Your task to perform on an android device: Open calendar and show me the third week of next month Image 0: 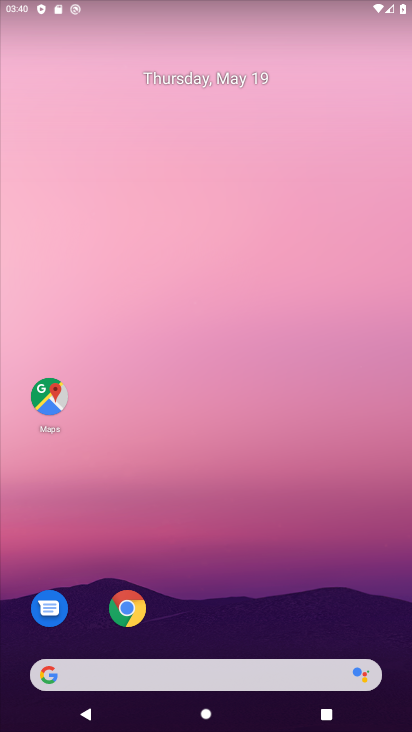
Step 0: drag from (243, 585) to (194, 4)
Your task to perform on an android device: Open calendar and show me the third week of next month Image 1: 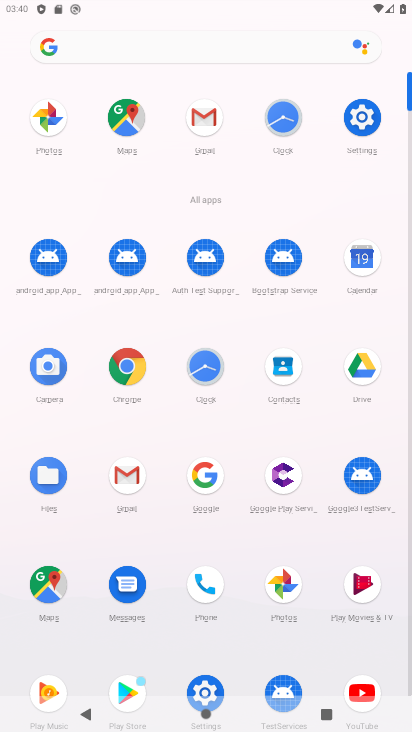
Step 1: click (361, 257)
Your task to perform on an android device: Open calendar and show me the third week of next month Image 2: 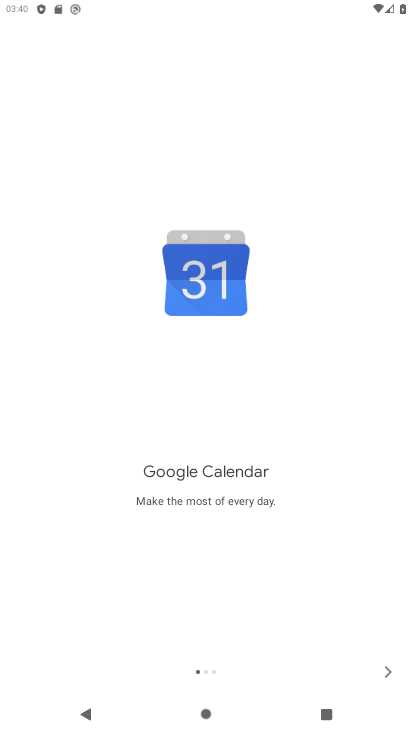
Step 2: click (385, 669)
Your task to perform on an android device: Open calendar and show me the third week of next month Image 3: 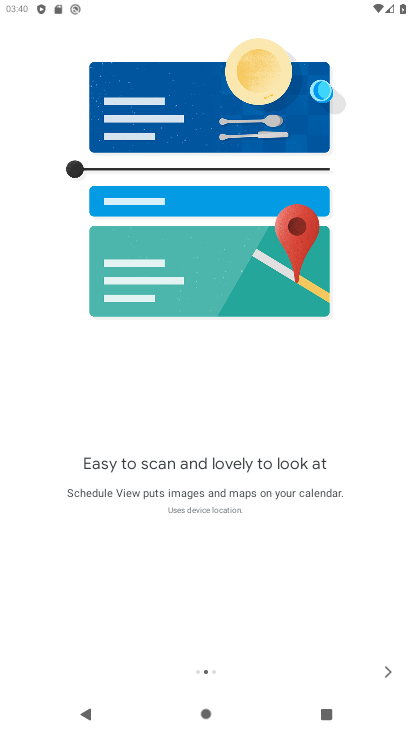
Step 3: click (385, 669)
Your task to perform on an android device: Open calendar and show me the third week of next month Image 4: 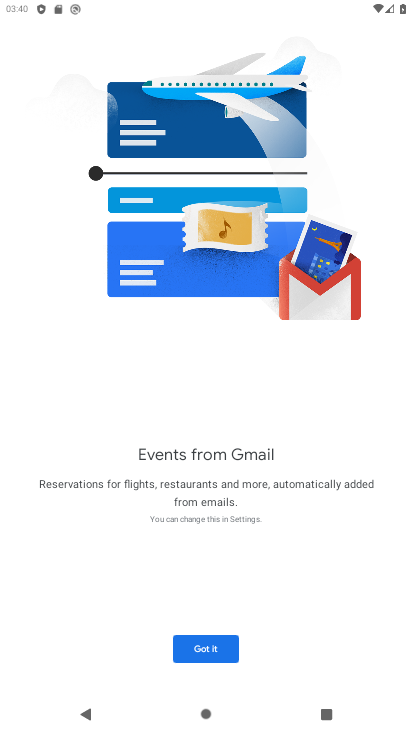
Step 4: click (200, 649)
Your task to perform on an android device: Open calendar and show me the third week of next month Image 5: 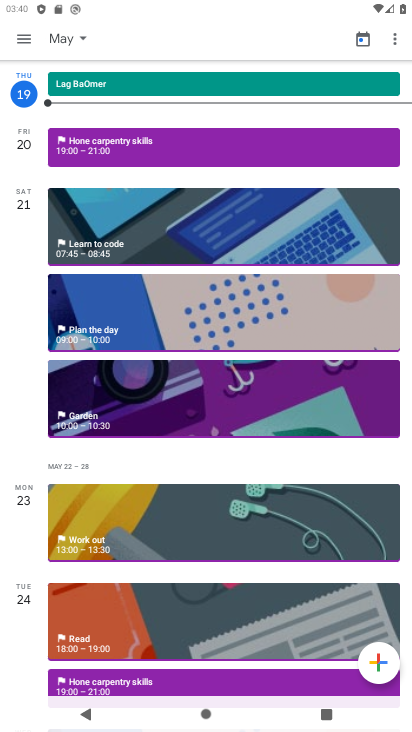
Step 5: click (83, 32)
Your task to perform on an android device: Open calendar and show me the third week of next month Image 6: 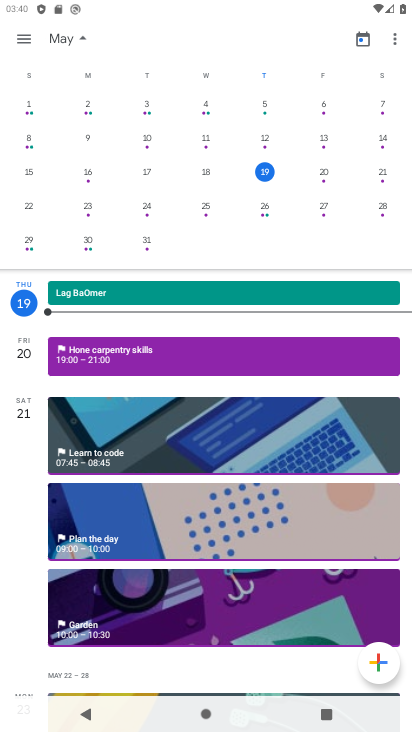
Step 6: drag from (363, 182) to (0, 211)
Your task to perform on an android device: Open calendar and show me the third week of next month Image 7: 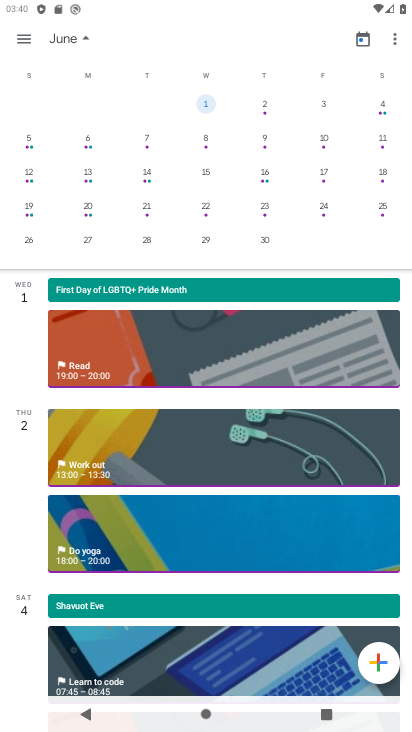
Step 7: click (85, 211)
Your task to perform on an android device: Open calendar and show me the third week of next month Image 8: 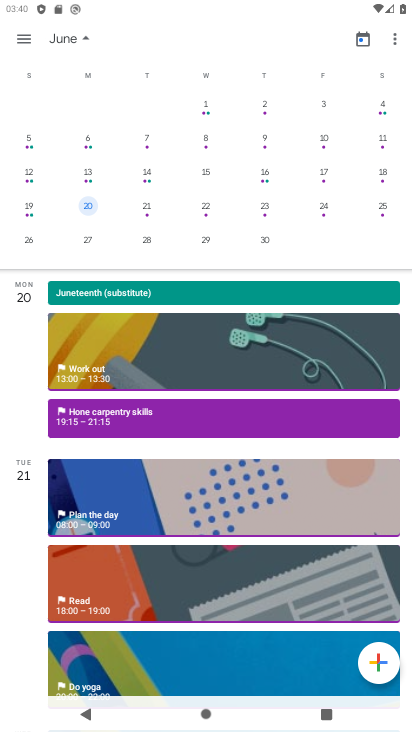
Step 8: click (23, 44)
Your task to perform on an android device: Open calendar and show me the third week of next month Image 9: 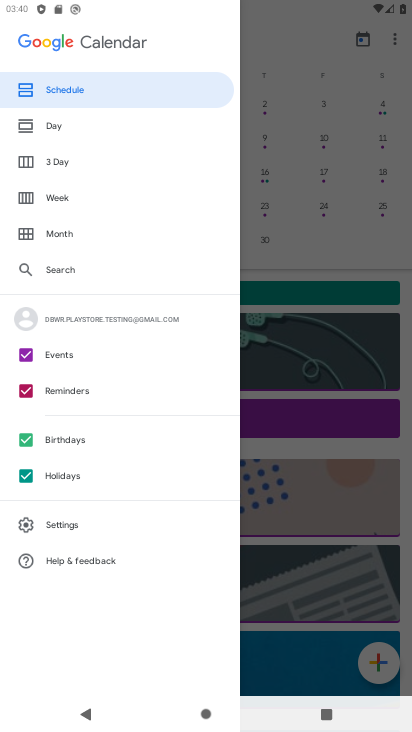
Step 9: click (60, 194)
Your task to perform on an android device: Open calendar and show me the third week of next month Image 10: 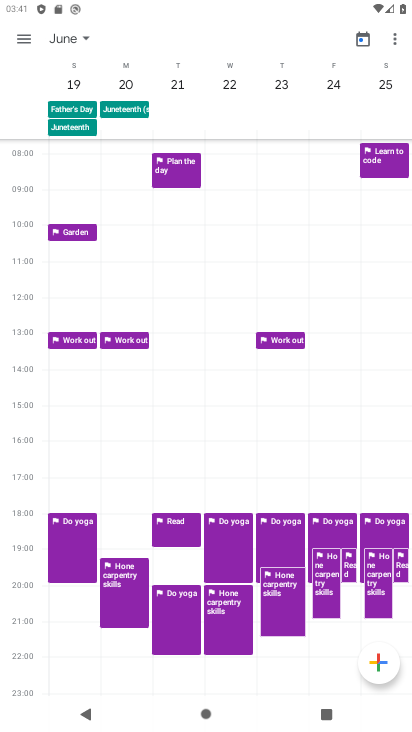
Step 10: task complete